Your task to perform on an android device: open app "Chime – Mobile Banking" (install if not already installed) and go to login screen Image 0: 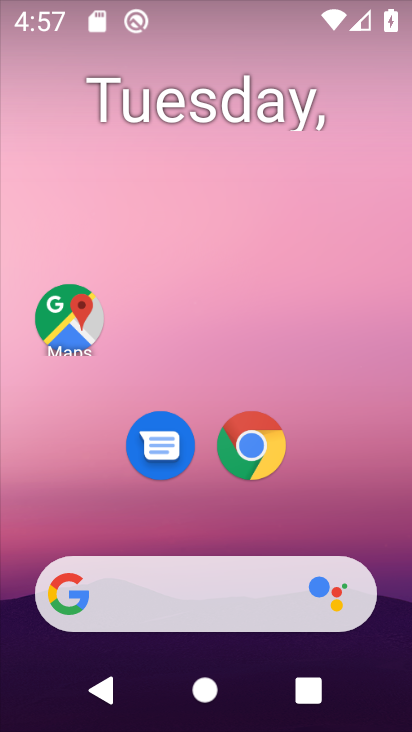
Step 0: drag from (139, 603) to (287, 46)
Your task to perform on an android device: open app "Chime – Mobile Banking" (install if not already installed) and go to login screen Image 1: 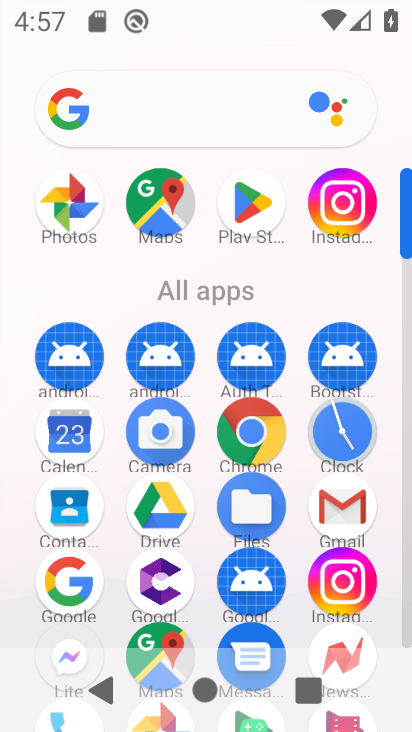
Step 1: click (247, 200)
Your task to perform on an android device: open app "Chime – Mobile Banking" (install if not already installed) and go to login screen Image 2: 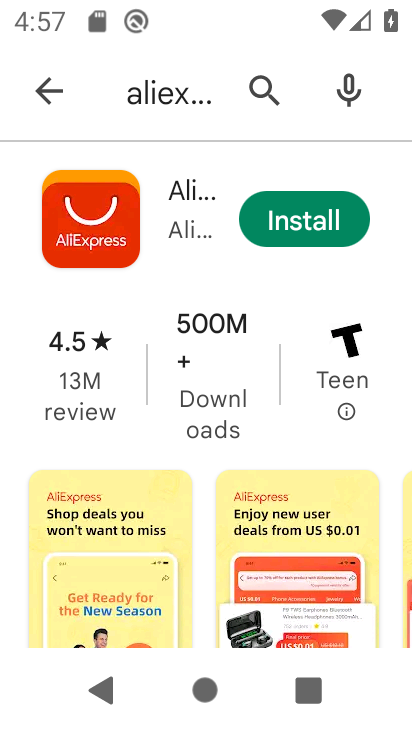
Step 2: press back button
Your task to perform on an android device: open app "Chime – Mobile Banking" (install if not already installed) and go to login screen Image 3: 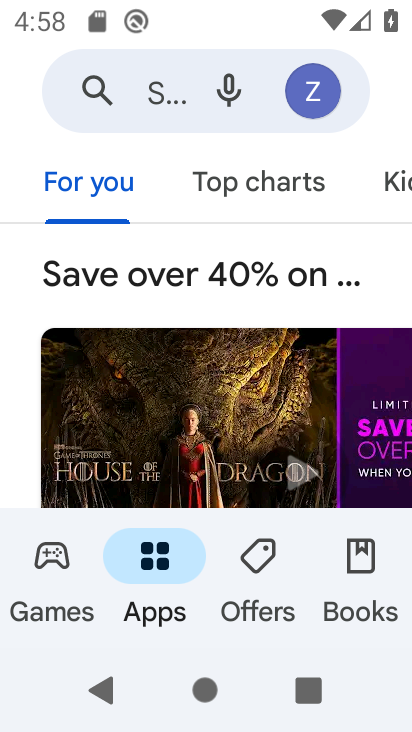
Step 3: click (186, 93)
Your task to perform on an android device: open app "Chime – Mobile Banking" (install if not already installed) and go to login screen Image 4: 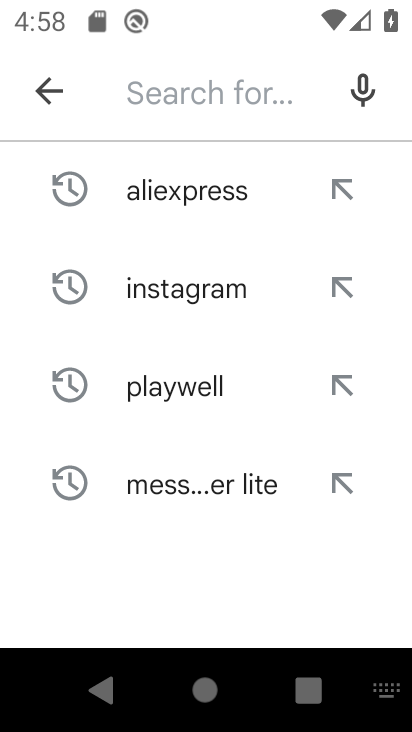
Step 4: type "Chime - Mobile Banking"
Your task to perform on an android device: open app "Chime – Mobile Banking" (install if not already installed) and go to login screen Image 5: 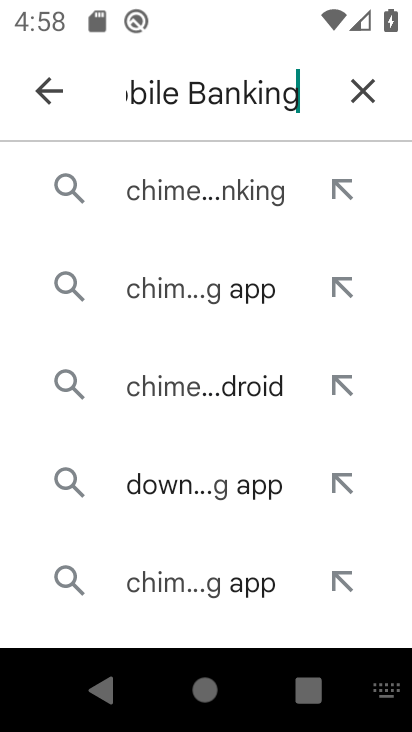
Step 5: click (174, 187)
Your task to perform on an android device: open app "Chime – Mobile Banking" (install if not already installed) and go to login screen Image 6: 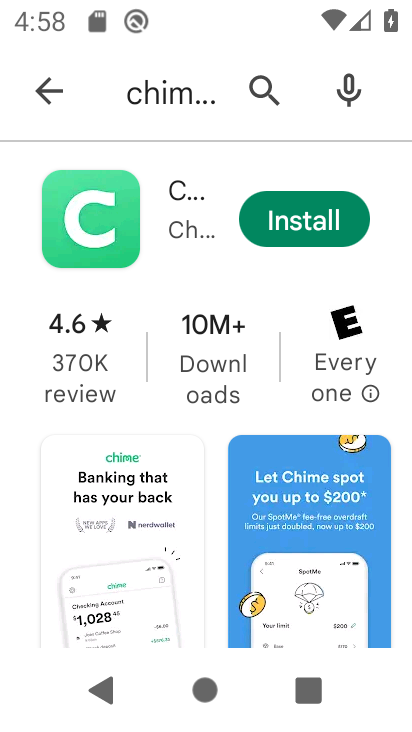
Step 6: click (286, 232)
Your task to perform on an android device: open app "Chime – Mobile Banking" (install if not already installed) and go to login screen Image 7: 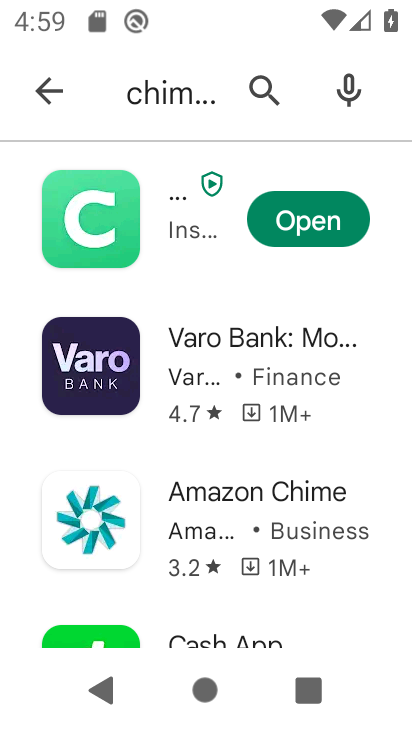
Step 7: click (297, 229)
Your task to perform on an android device: open app "Chime – Mobile Banking" (install if not already installed) and go to login screen Image 8: 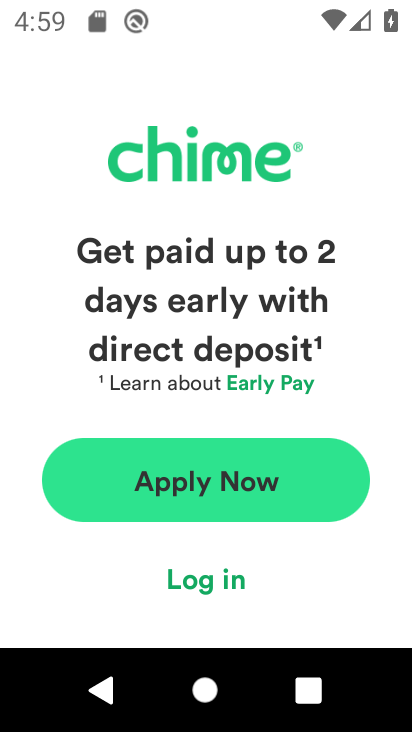
Step 8: click (188, 585)
Your task to perform on an android device: open app "Chime – Mobile Banking" (install if not already installed) and go to login screen Image 9: 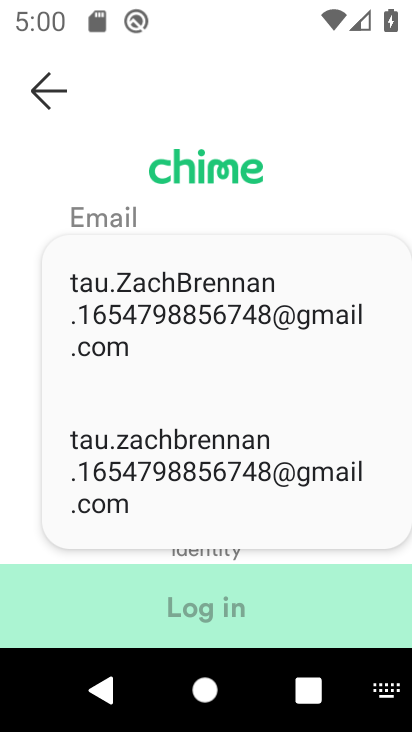
Step 9: task complete